Your task to perform on an android device: Turn off the flashlight Image 0: 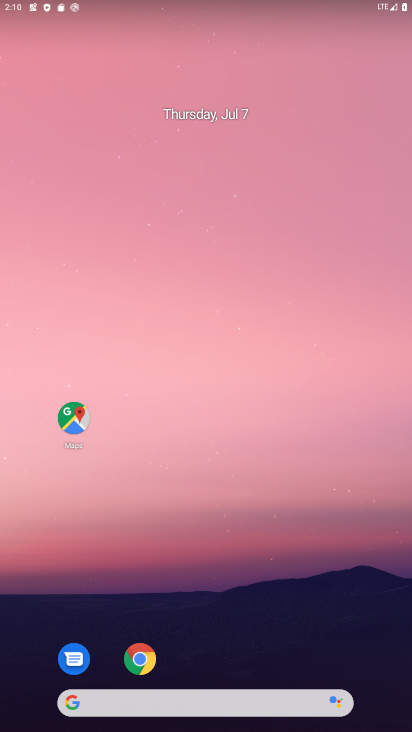
Step 0: drag from (230, 621) to (231, 89)
Your task to perform on an android device: Turn off the flashlight Image 1: 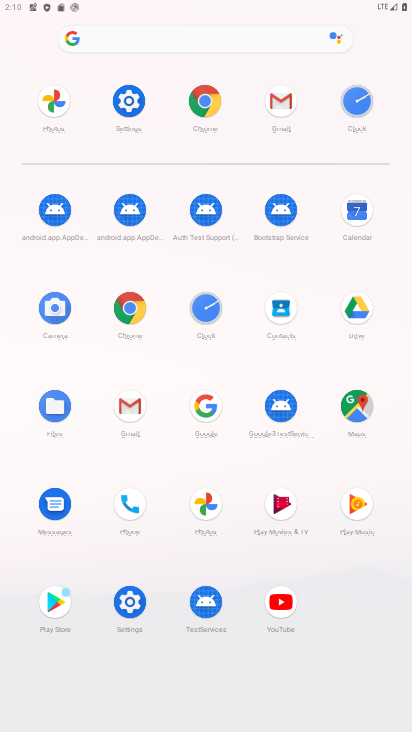
Step 1: click (130, 101)
Your task to perform on an android device: Turn off the flashlight Image 2: 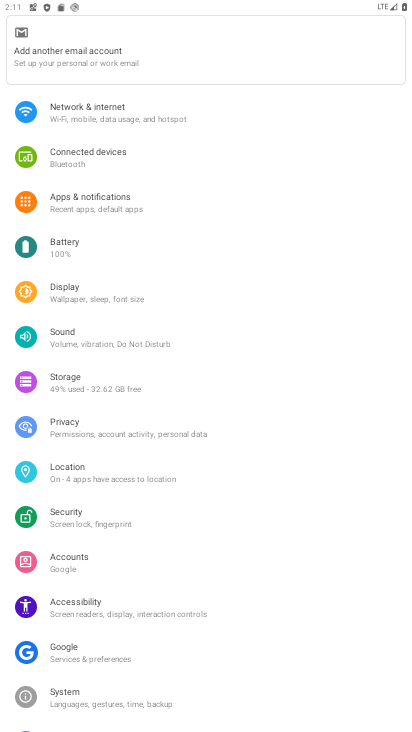
Step 2: click (94, 305)
Your task to perform on an android device: Turn off the flashlight Image 3: 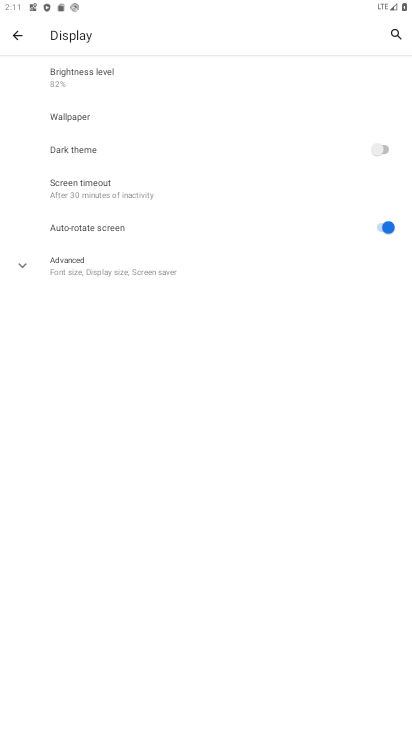
Step 3: click (113, 269)
Your task to perform on an android device: Turn off the flashlight Image 4: 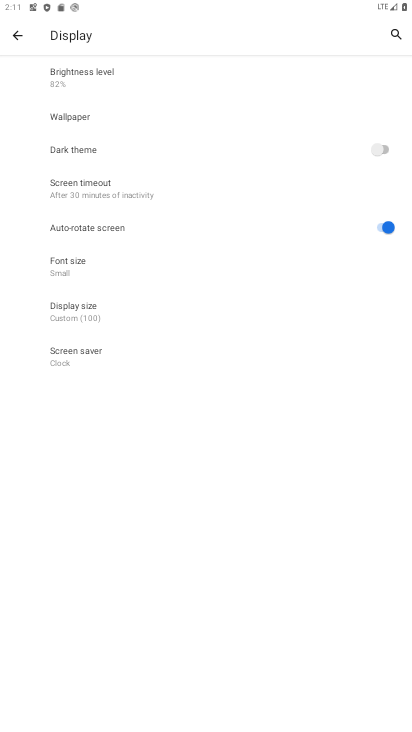
Step 4: task complete